Your task to perform on an android device: allow cookies in the chrome app Image 0: 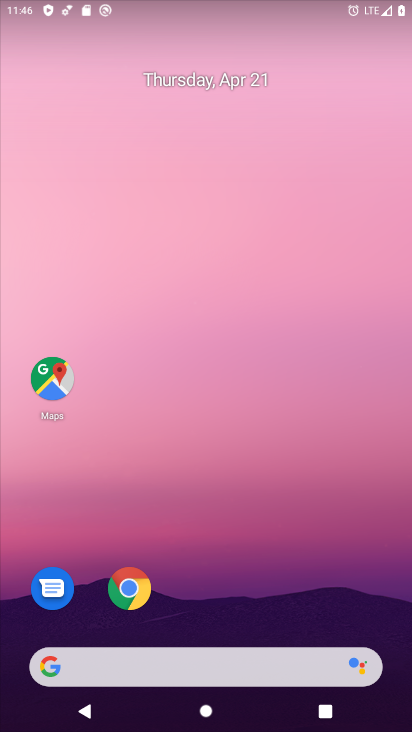
Step 0: drag from (268, 676) to (210, 263)
Your task to perform on an android device: allow cookies in the chrome app Image 1: 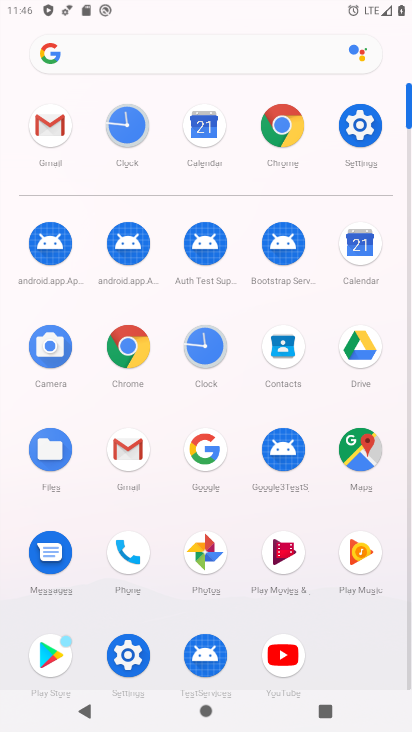
Step 1: click (141, 368)
Your task to perform on an android device: allow cookies in the chrome app Image 2: 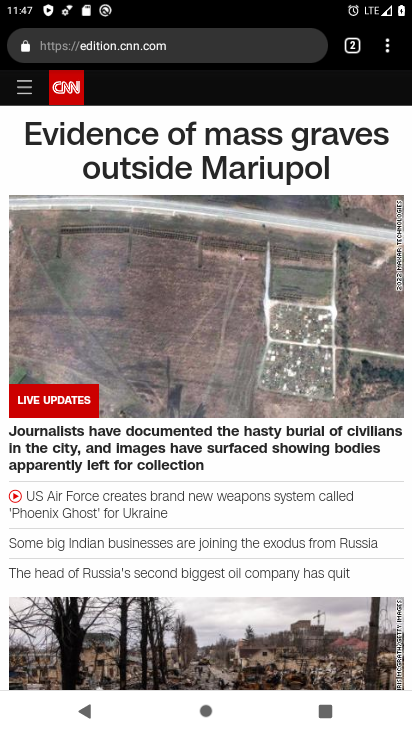
Step 2: click (387, 52)
Your task to perform on an android device: allow cookies in the chrome app Image 3: 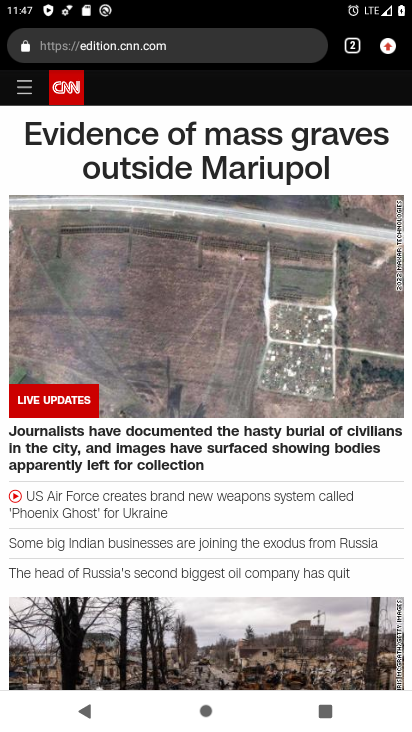
Step 3: click (386, 51)
Your task to perform on an android device: allow cookies in the chrome app Image 4: 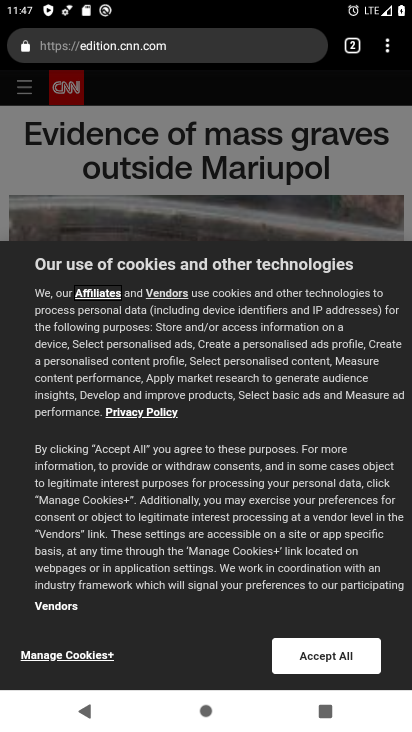
Step 4: click (392, 45)
Your task to perform on an android device: allow cookies in the chrome app Image 5: 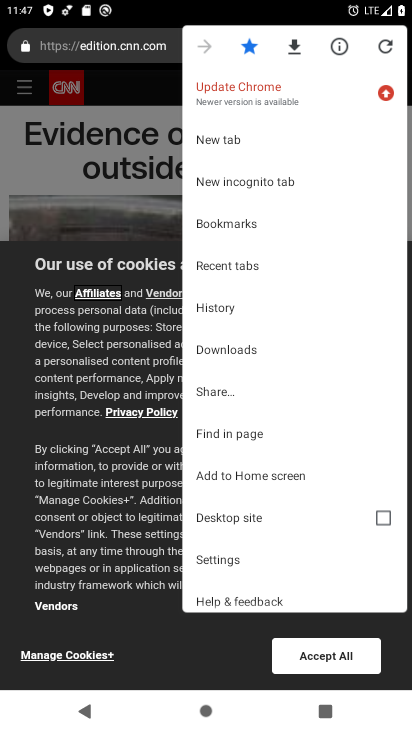
Step 5: click (237, 545)
Your task to perform on an android device: allow cookies in the chrome app Image 6: 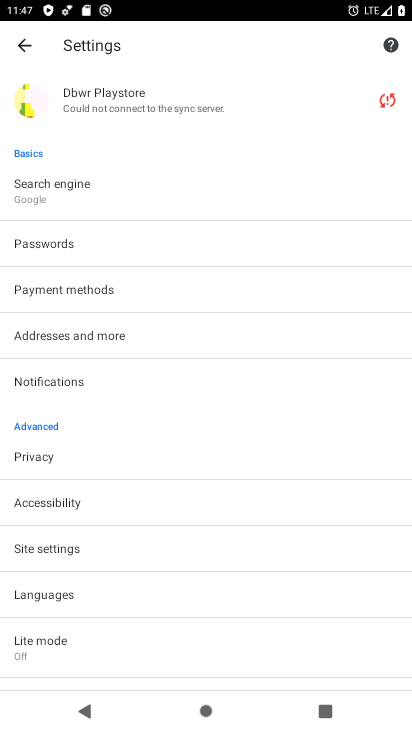
Step 6: click (61, 552)
Your task to perform on an android device: allow cookies in the chrome app Image 7: 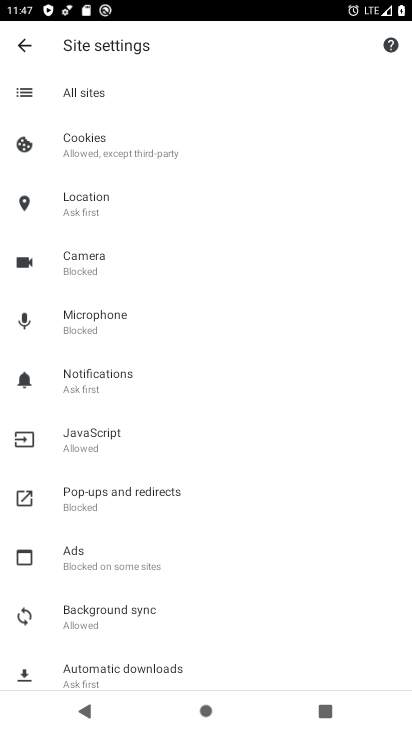
Step 7: click (81, 149)
Your task to perform on an android device: allow cookies in the chrome app Image 8: 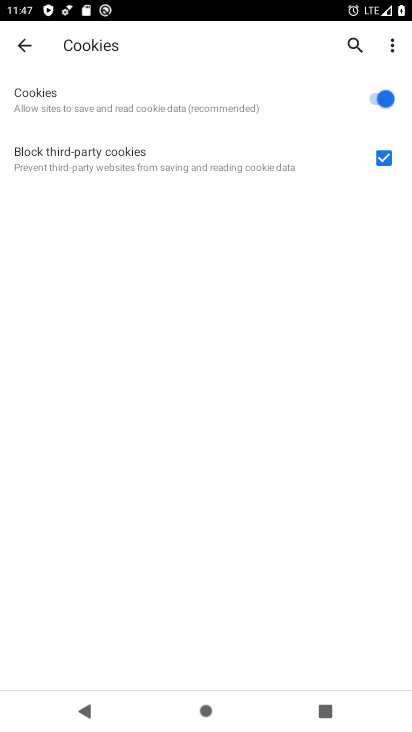
Step 8: click (131, 83)
Your task to perform on an android device: allow cookies in the chrome app Image 9: 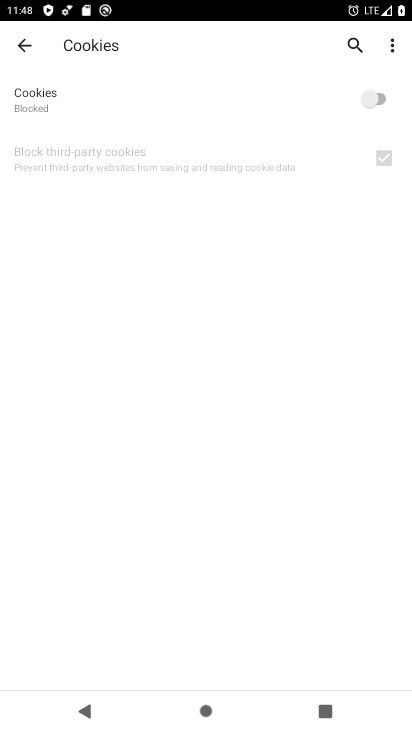
Step 9: click (131, 83)
Your task to perform on an android device: allow cookies in the chrome app Image 10: 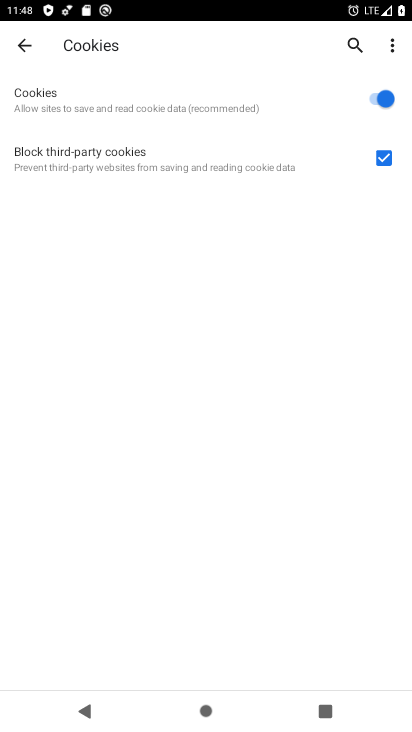
Step 10: task complete